Your task to perform on an android device: Set the phone to "Do not disturb". Image 0: 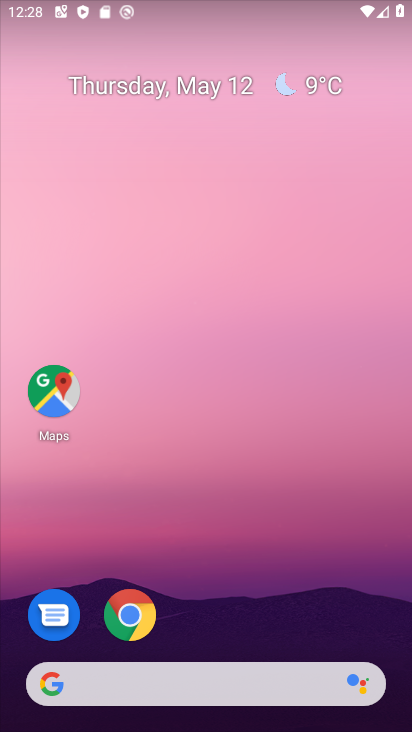
Step 0: drag from (225, 0) to (254, 516)
Your task to perform on an android device: Set the phone to "Do not disturb". Image 1: 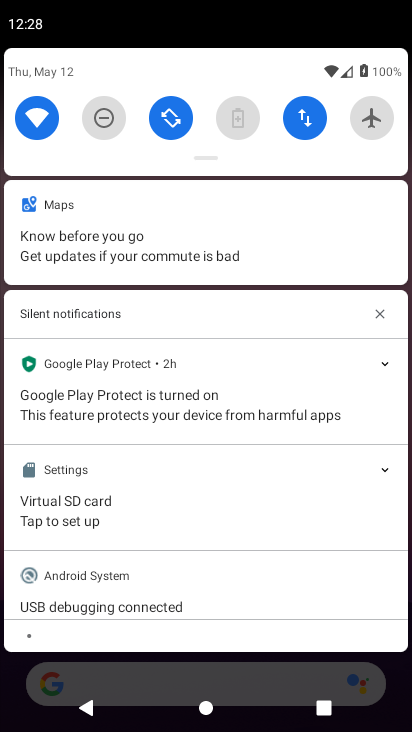
Step 1: click (108, 104)
Your task to perform on an android device: Set the phone to "Do not disturb". Image 2: 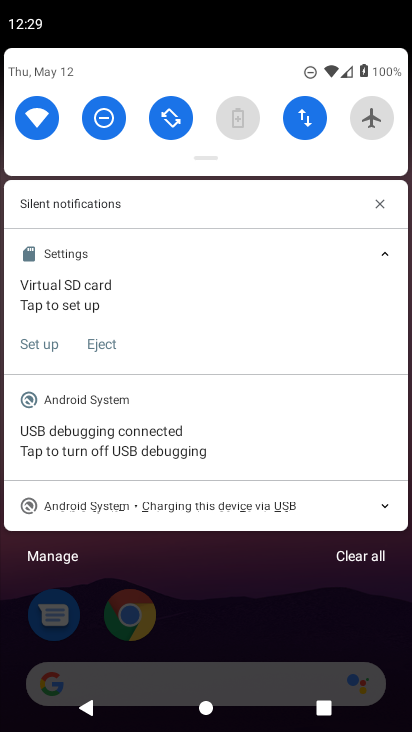
Step 2: task complete